Your task to perform on an android device: choose inbox layout in the gmail app Image 0: 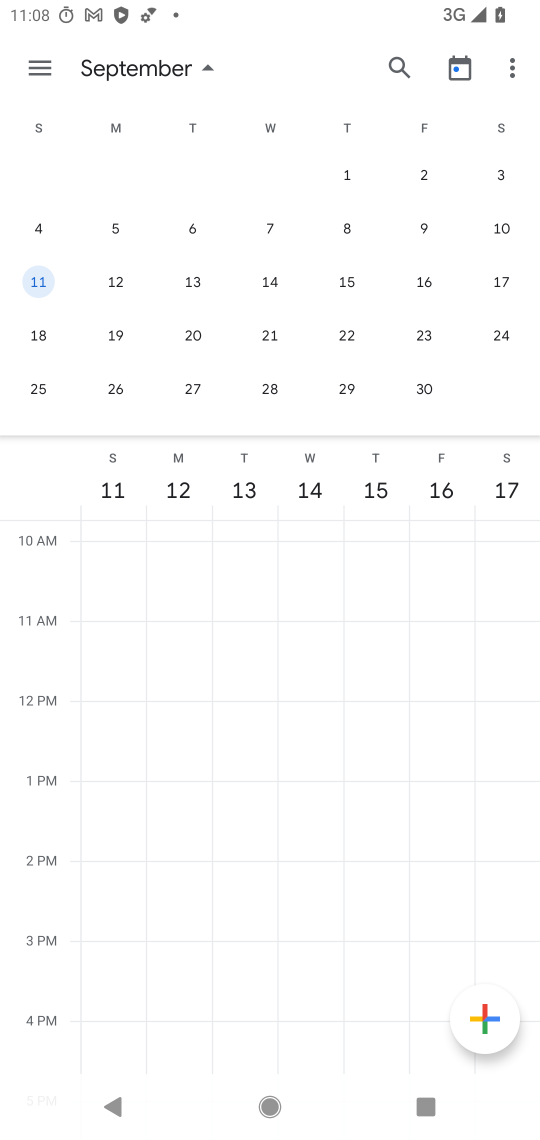
Step 0: press home button
Your task to perform on an android device: choose inbox layout in the gmail app Image 1: 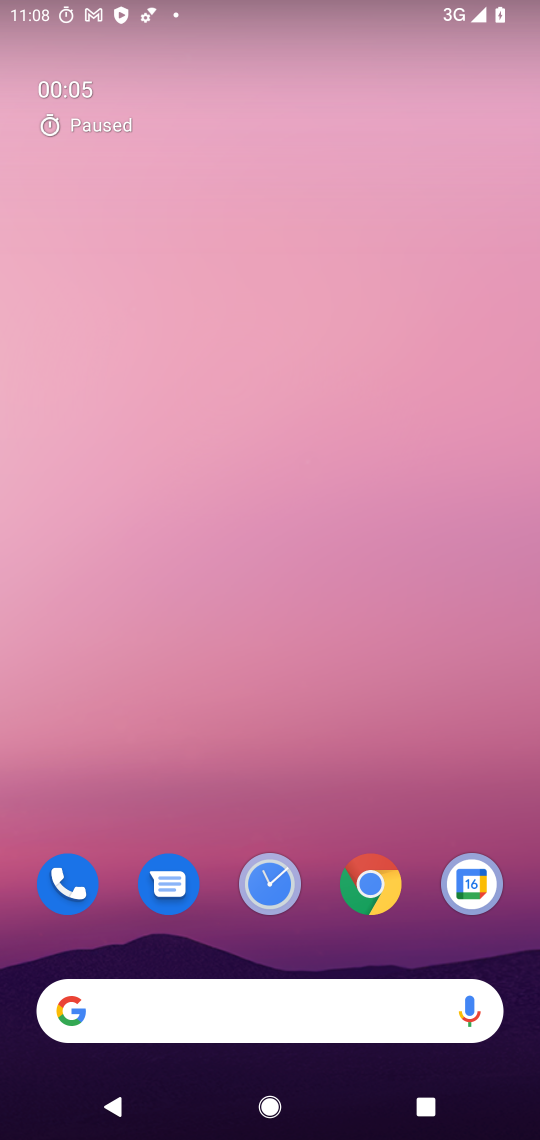
Step 1: drag from (249, 549) to (249, 11)
Your task to perform on an android device: choose inbox layout in the gmail app Image 2: 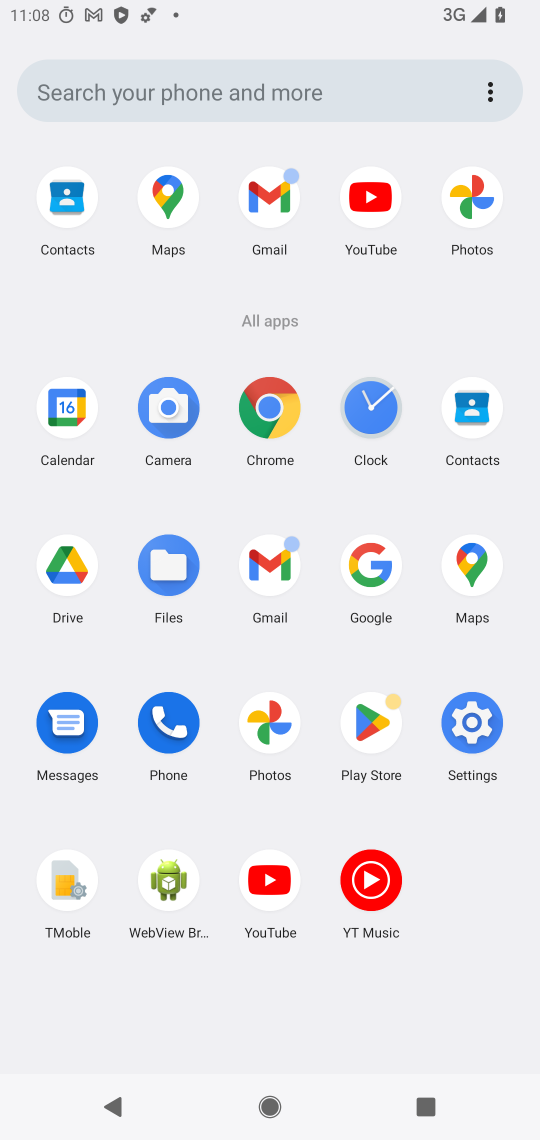
Step 2: click (262, 204)
Your task to perform on an android device: choose inbox layout in the gmail app Image 3: 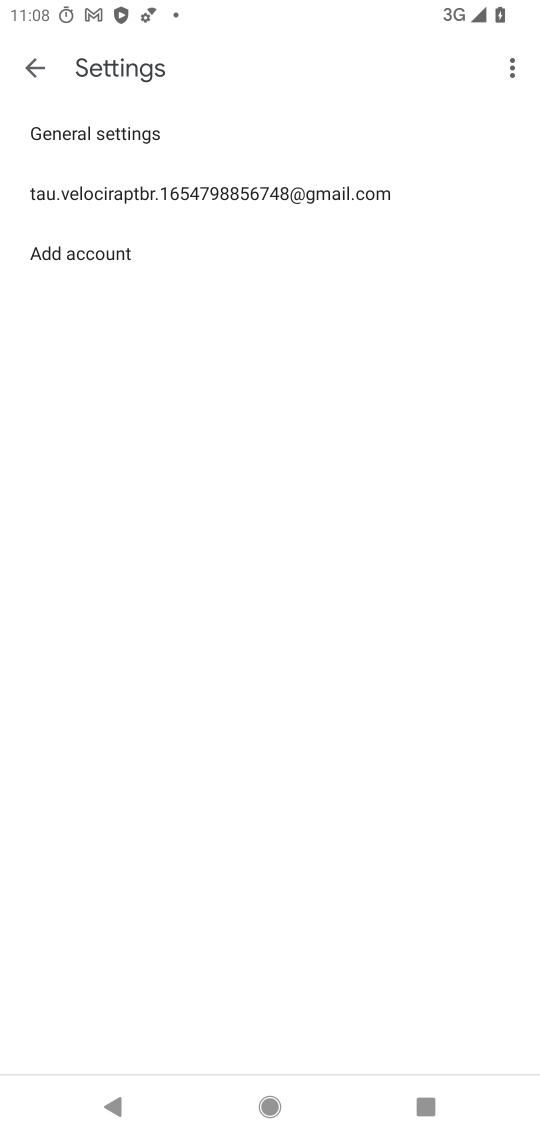
Step 3: click (232, 186)
Your task to perform on an android device: choose inbox layout in the gmail app Image 4: 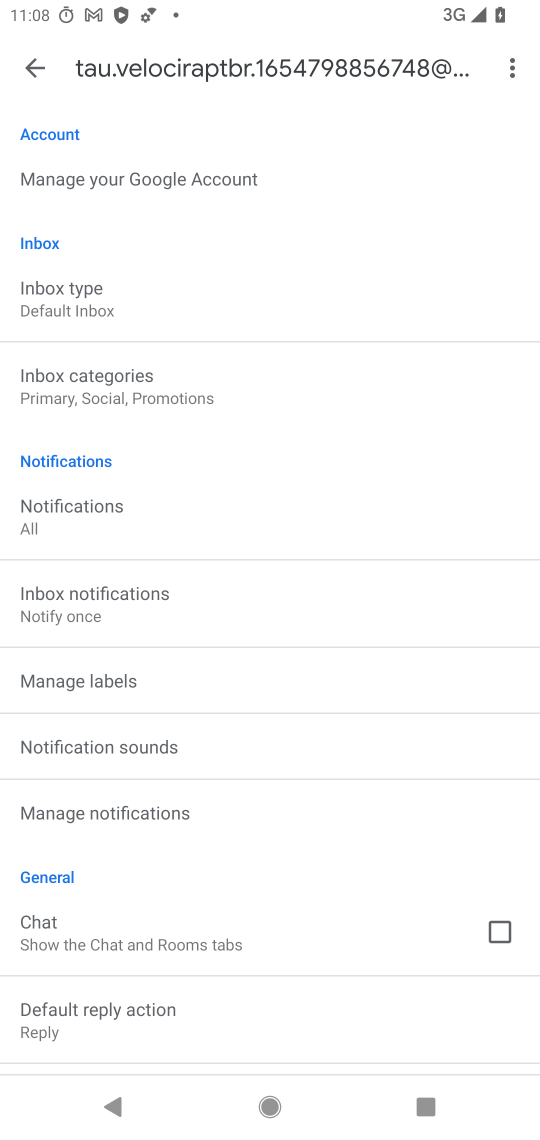
Step 4: click (52, 306)
Your task to perform on an android device: choose inbox layout in the gmail app Image 5: 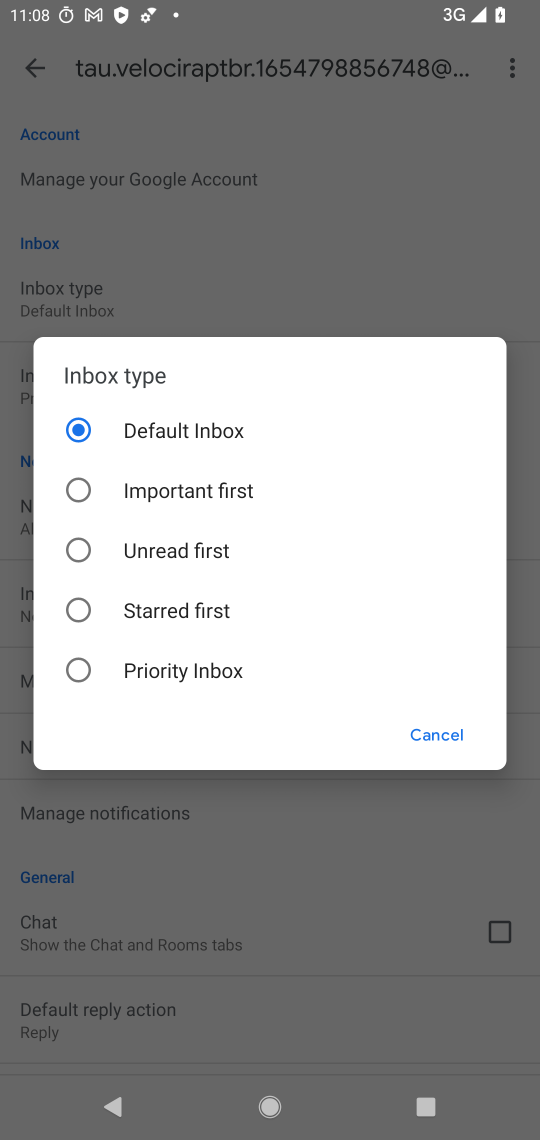
Step 5: click (72, 671)
Your task to perform on an android device: choose inbox layout in the gmail app Image 6: 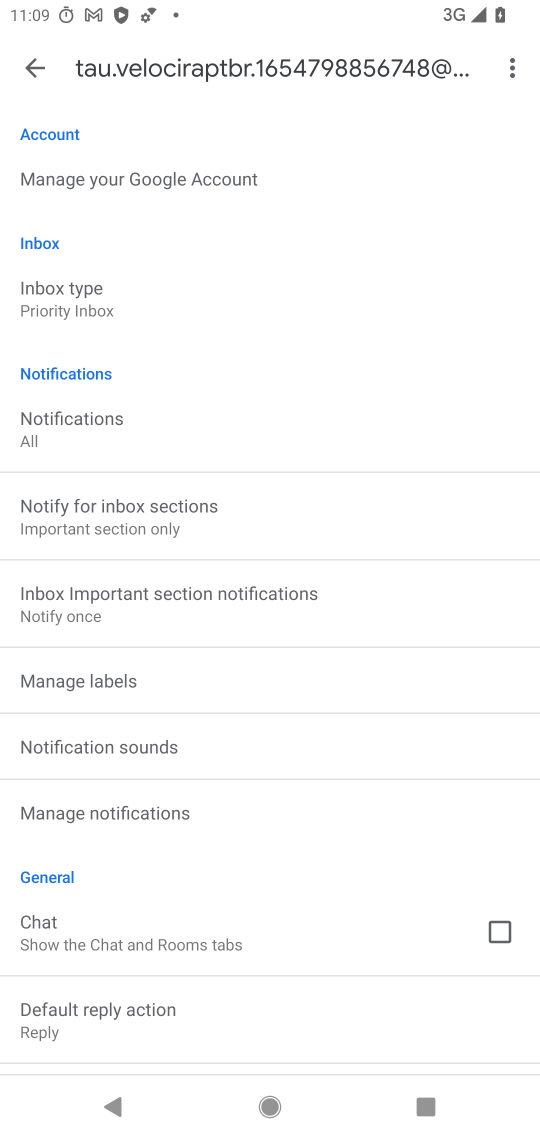
Step 6: task complete